Your task to perform on an android device: turn off javascript in the chrome app Image 0: 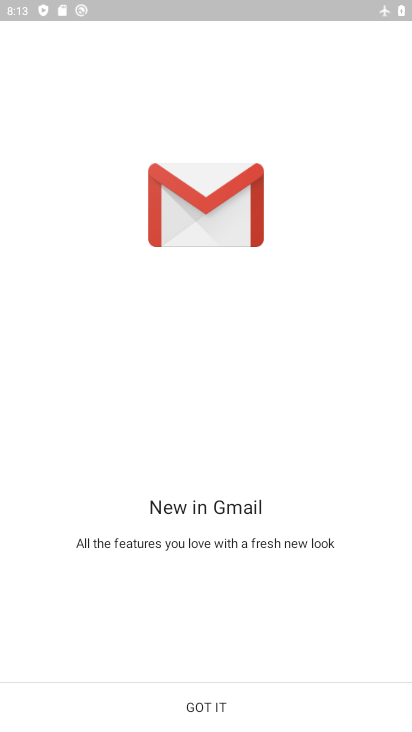
Step 0: press home button
Your task to perform on an android device: turn off javascript in the chrome app Image 1: 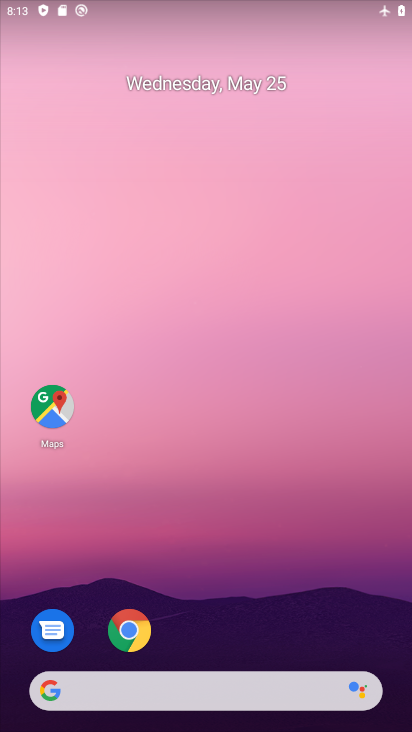
Step 1: click (125, 632)
Your task to perform on an android device: turn off javascript in the chrome app Image 2: 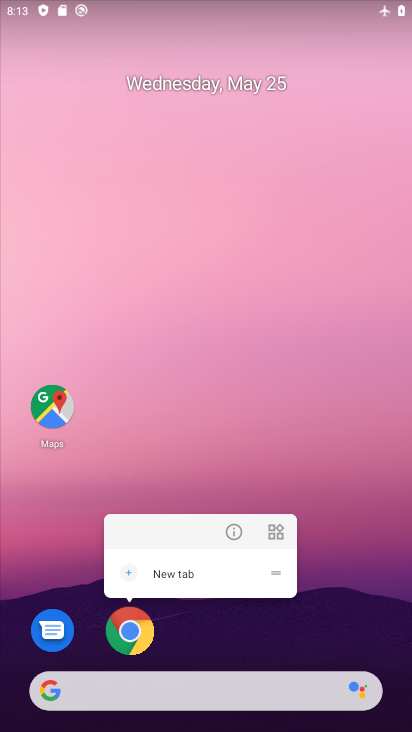
Step 2: click (126, 630)
Your task to perform on an android device: turn off javascript in the chrome app Image 3: 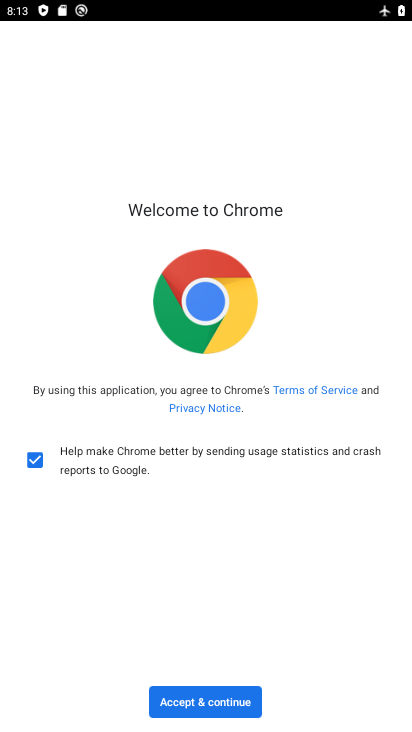
Step 3: click (235, 698)
Your task to perform on an android device: turn off javascript in the chrome app Image 4: 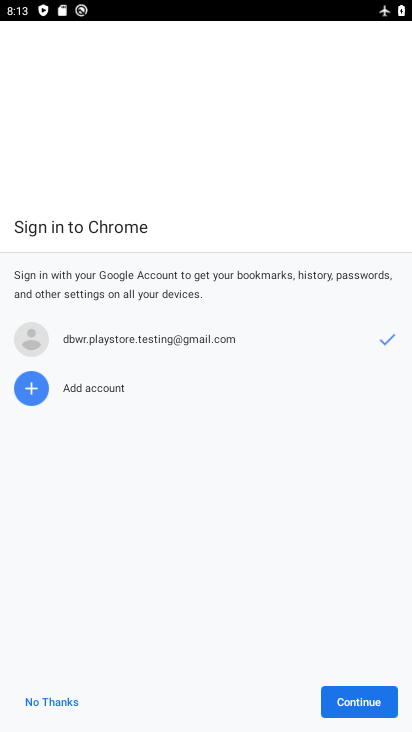
Step 4: click (381, 714)
Your task to perform on an android device: turn off javascript in the chrome app Image 5: 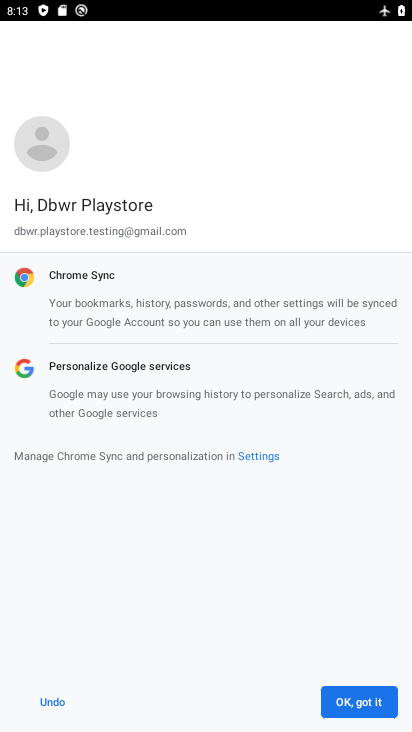
Step 5: click (357, 699)
Your task to perform on an android device: turn off javascript in the chrome app Image 6: 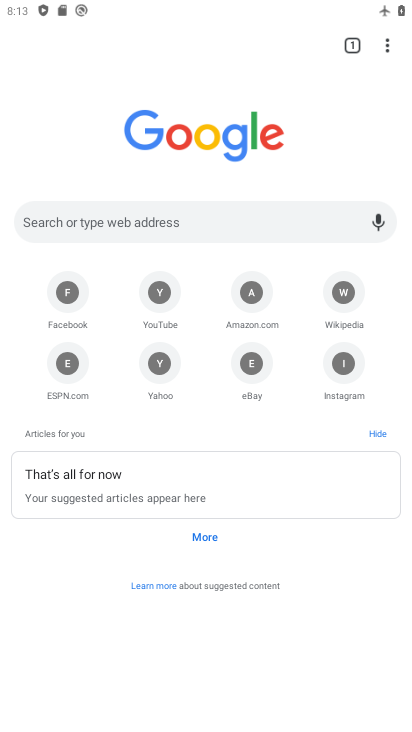
Step 6: click (390, 34)
Your task to perform on an android device: turn off javascript in the chrome app Image 7: 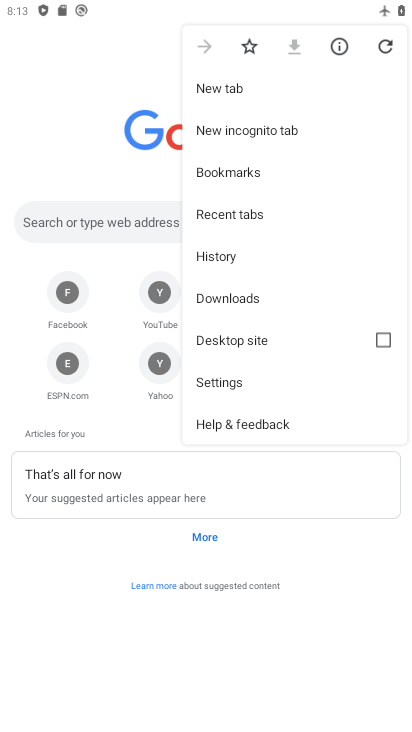
Step 7: click (260, 382)
Your task to perform on an android device: turn off javascript in the chrome app Image 8: 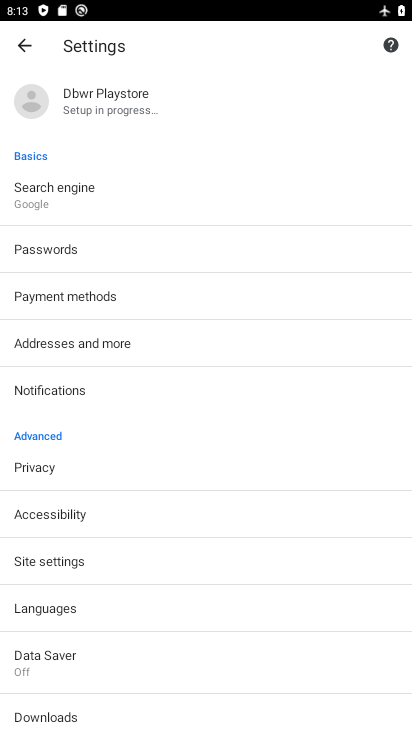
Step 8: drag from (209, 657) to (240, 477)
Your task to perform on an android device: turn off javascript in the chrome app Image 9: 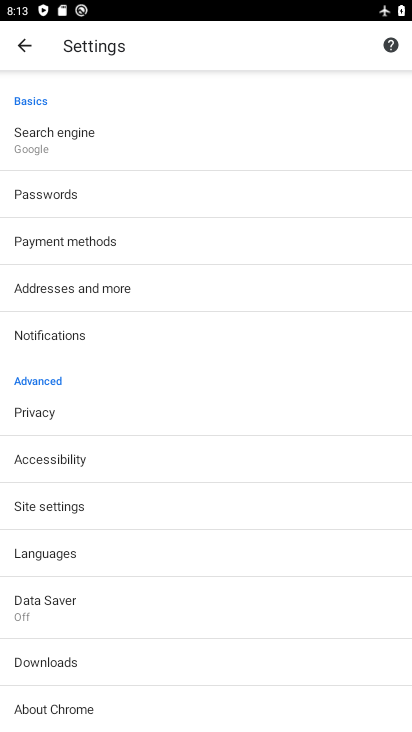
Step 9: drag from (151, 648) to (236, 307)
Your task to perform on an android device: turn off javascript in the chrome app Image 10: 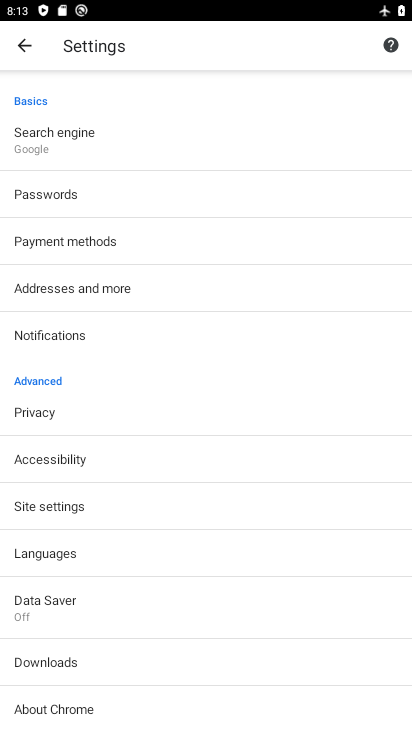
Step 10: click (118, 503)
Your task to perform on an android device: turn off javascript in the chrome app Image 11: 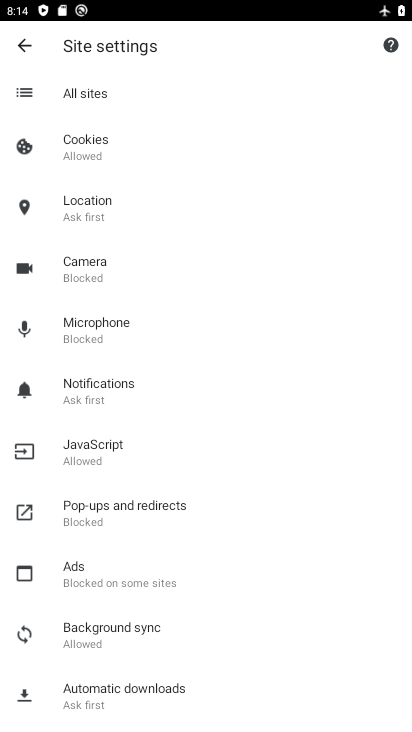
Step 11: drag from (181, 644) to (210, 454)
Your task to perform on an android device: turn off javascript in the chrome app Image 12: 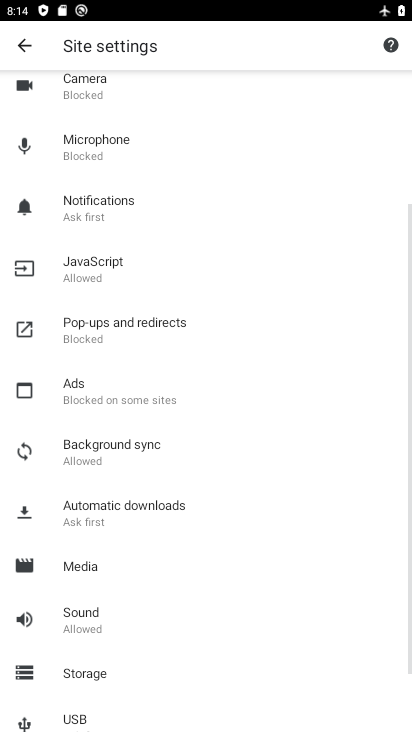
Step 12: click (162, 263)
Your task to perform on an android device: turn off javascript in the chrome app Image 13: 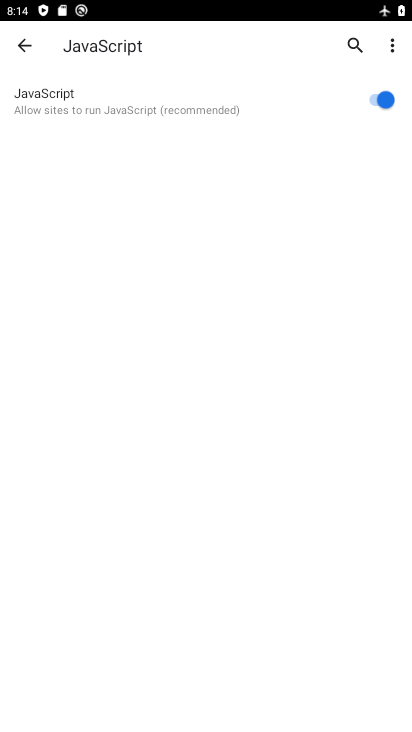
Step 13: click (374, 92)
Your task to perform on an android device: turn off javascript in the chrome app Image 14: 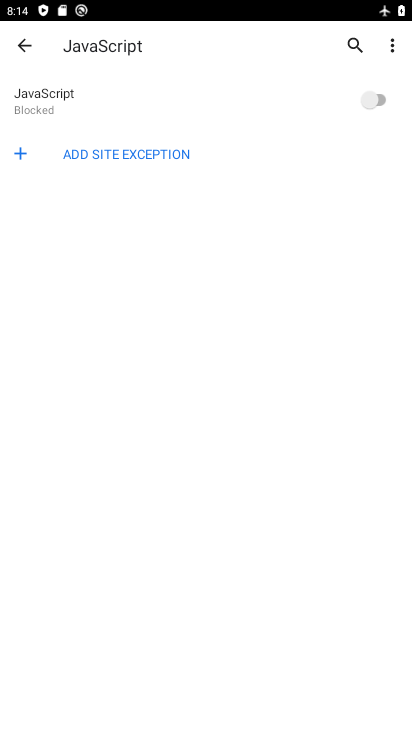
Step 14: task complete